Your task to perform on an android device: When is my next meeting? Image 0: 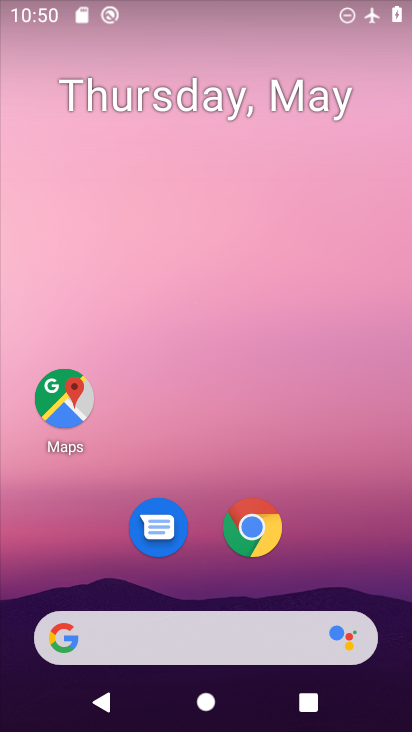
Step 0: drag from (353, 546) to (377, 109)
Your task to perform on an android device: When is my next meeting? Image 1: 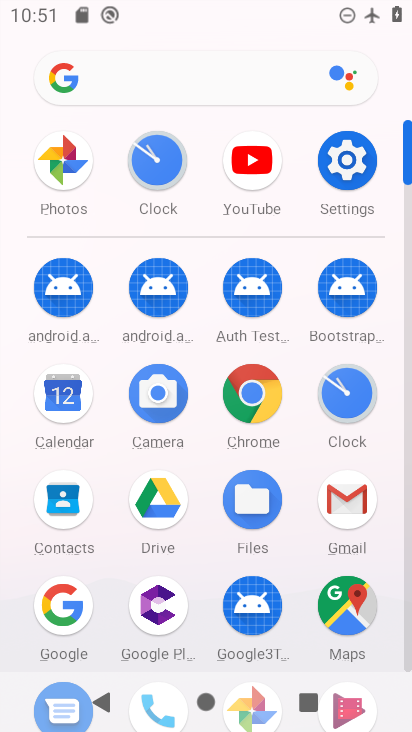
Step 1: click (76, 386)
Your task to perform on an android device: When is my next meeting? Image 2: 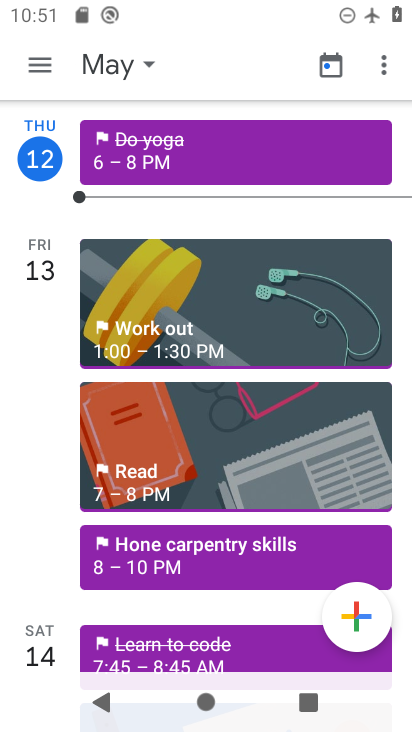
Step 2: task complete